Your task to perform on an android device: turn off location history Image 0: 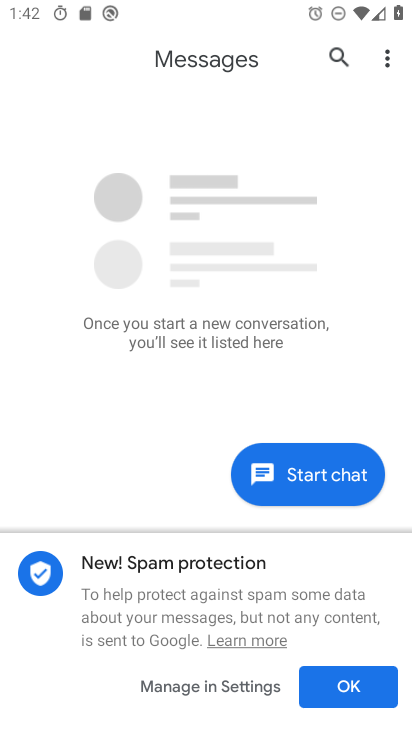
Step 0: press home button
Your task to perform on an android device: turn off location history Image 1: 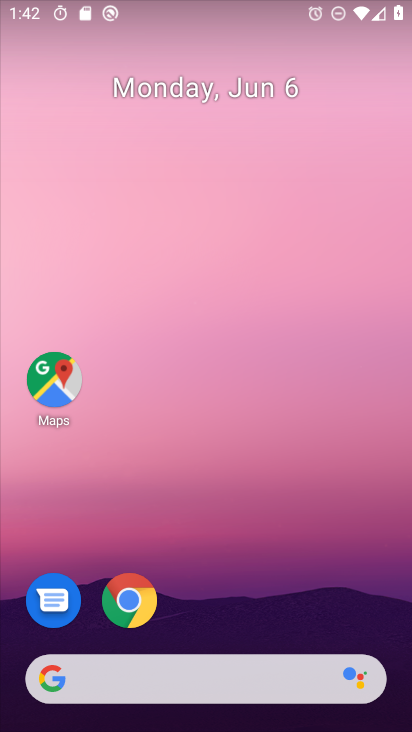
Step 1: drag from (236, 618) to (248, 227)
Your task to perform on an android device: turn off location history Image 2: 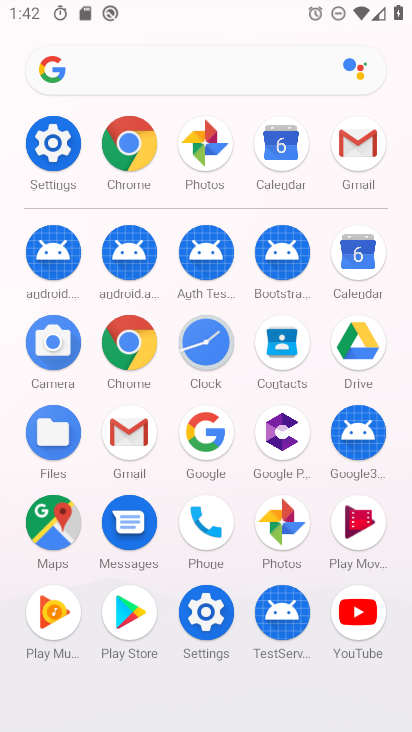
Step 2: click (52, 145)
Your task to perform on an android device: turn off location history Image 3: 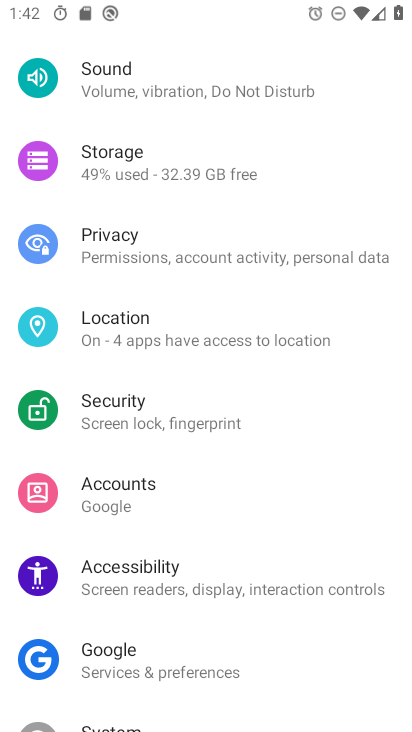
Step 3: click (206, 345)
Your task to perform on an android device: turn off location history Image 4: 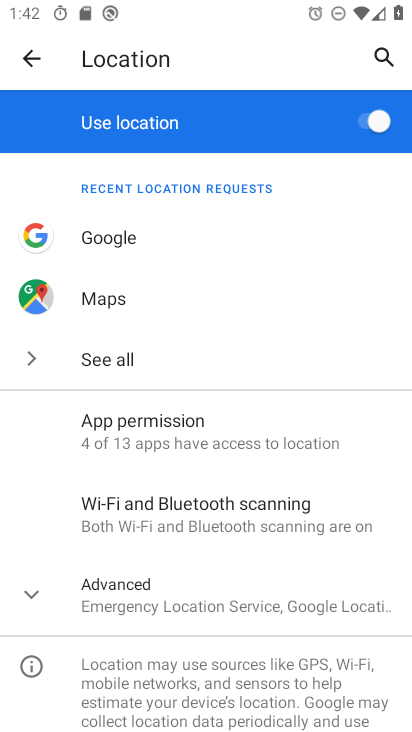
Step 4: drag from (245, 617) to (257, 318)
Your task to perform on an android device: turn off location history Image 5: 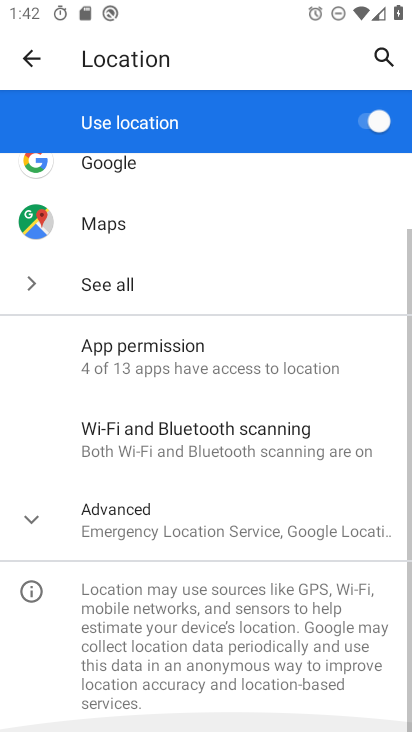
Step 5: click (212, 519)
Your task to perform on an android device: turn off location history Image 6: 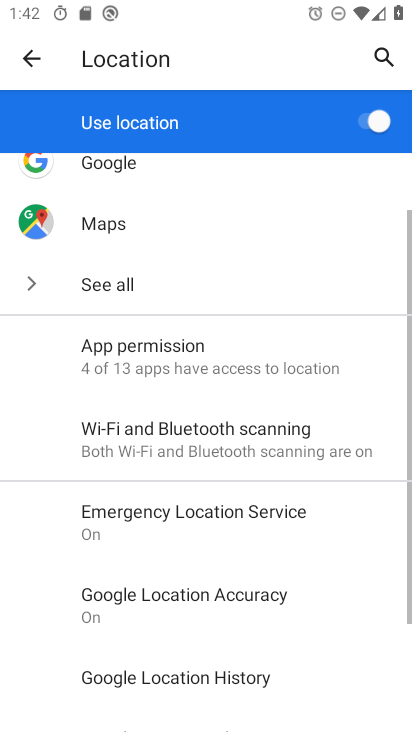
Step 6: drag from (214, 654) to (252, 435)
Your task to perform on an android device: turn off location history Image 7: 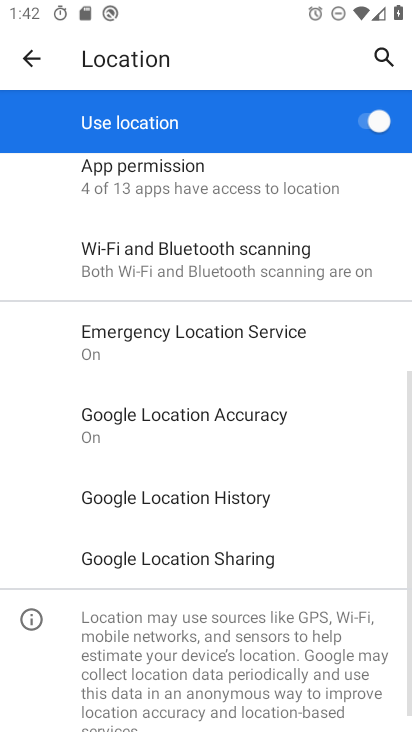
Step 7: click (250, 488)
Your task to perform on an android device: turn off location history Image 8: 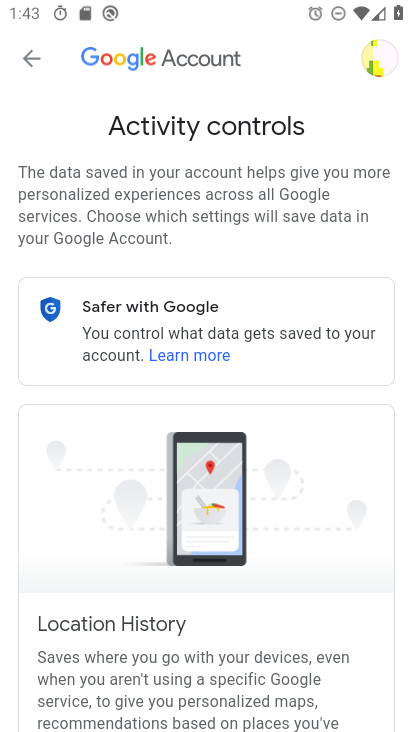
Step 8: drag from (250, 595) to (284, 243)
Your task to perform on an android device: turn off location history Image 9: 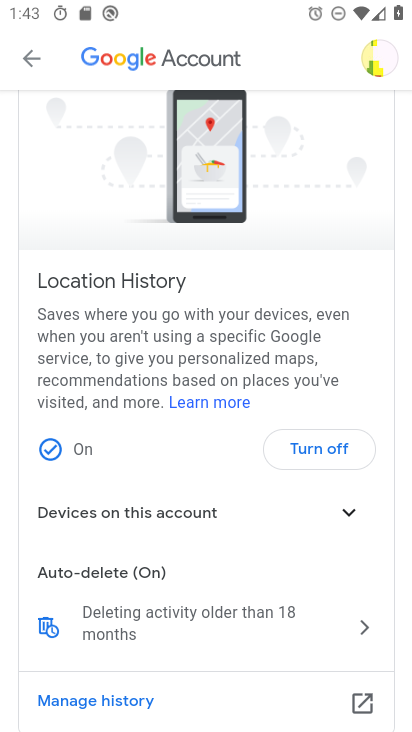
Step 9: click (294, 445)
Your task to perform on an android device: turn off location history Image 10: 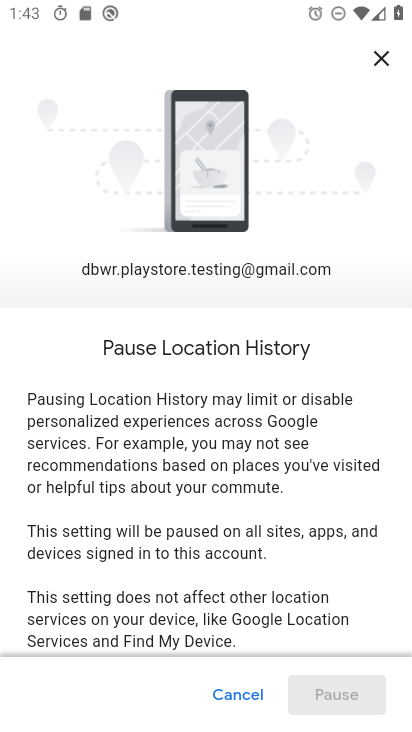
Step 10: drag from (267, 550) to (285, 235)
Your task to perform on an android device: turn off location history Image 11: 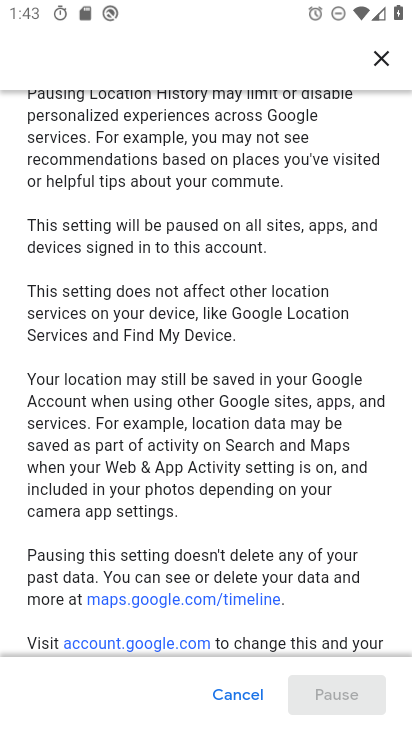
Step 11: drag from (249, 500) to (278, 271)
Your task to perform on an android device: turn off location history Image 12: 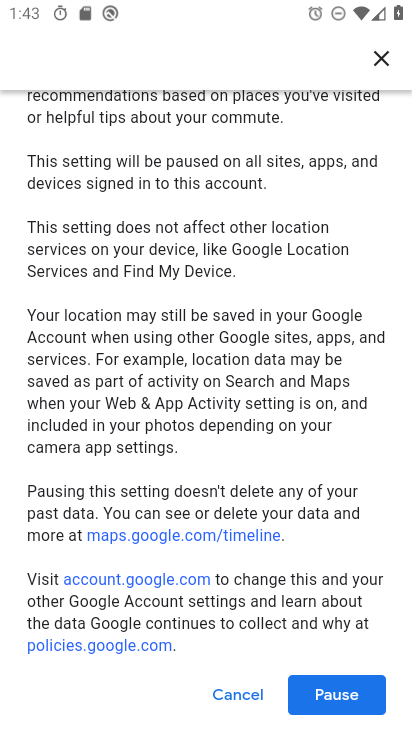
Step 12: click (332, 693)
Your task to perform on an android device: turn off location history Image 13: 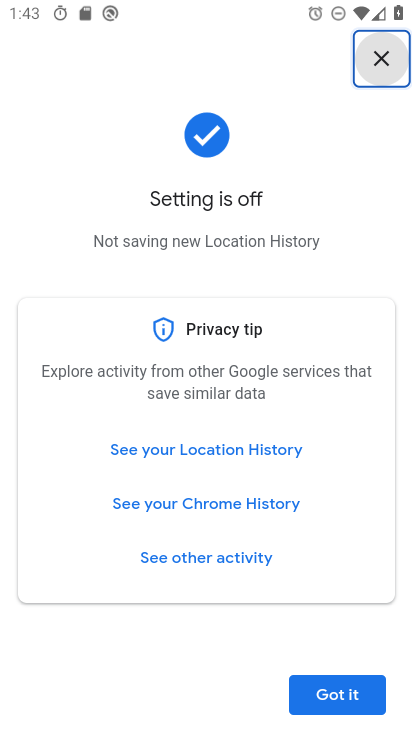
Step 13: task complete